Your task to perform on an android device: change the clock display to digital Image 0: 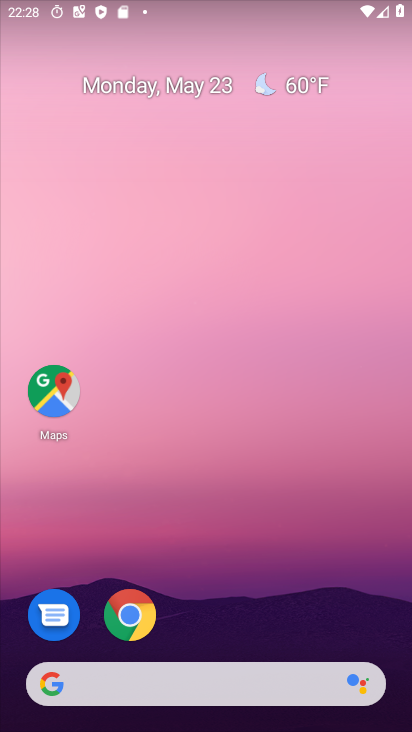
Step 0: drag from (238, 599) to (298, 75)
Your task to perform on an android device: change the clock display to digital Image 1: 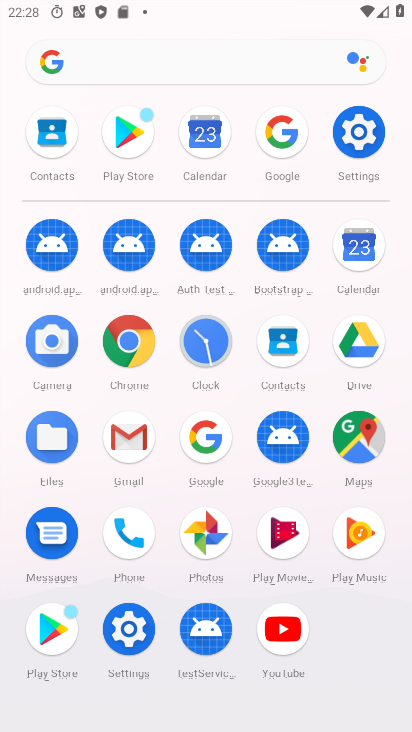
Step 1: click (205, 345)
Your task to perform on an android device: change the clock display to digital Image 2: 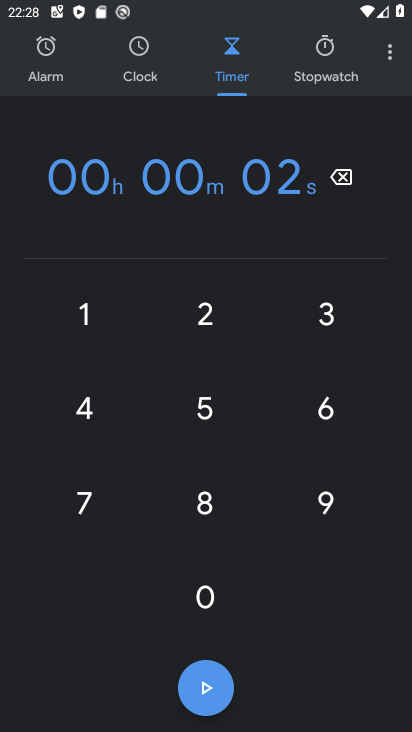
Step 2: click (386, 54)
Your task to perform on an android device: change the clock display to digital Image 3: 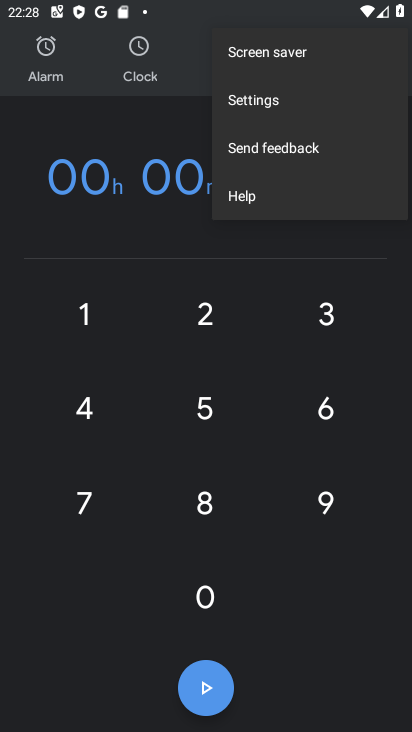
Step 3: click (294, 100)
Your task to perform on an android device: change the clock display to digital Image 4: 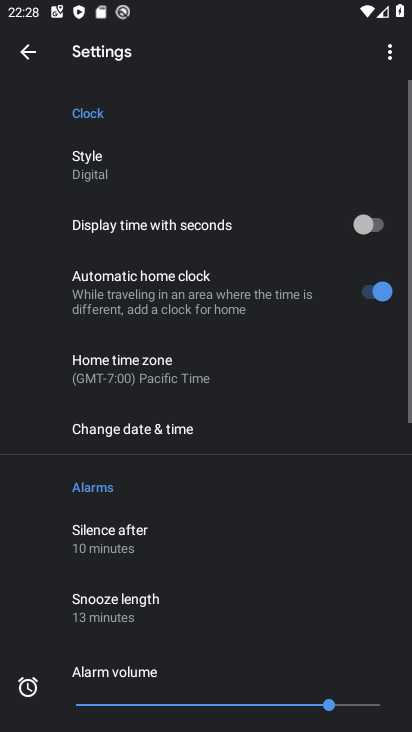
Step 4: click (152, 166)
Your task to perform on an android device: change the clock display to digital Image 5: 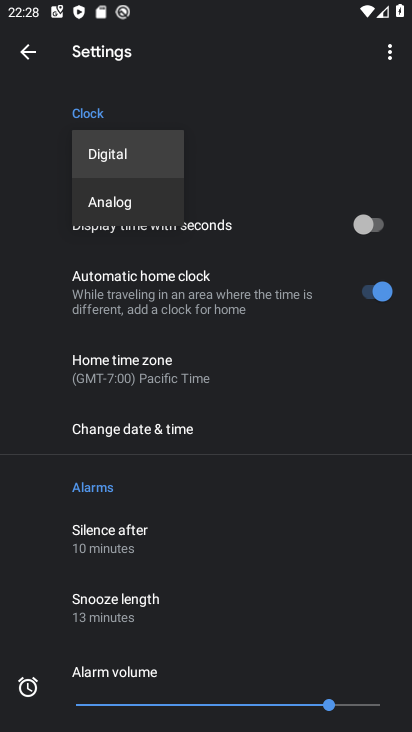
Step 5: task complete